Your task to perform on an android device: empty trash in google photos Image 0: 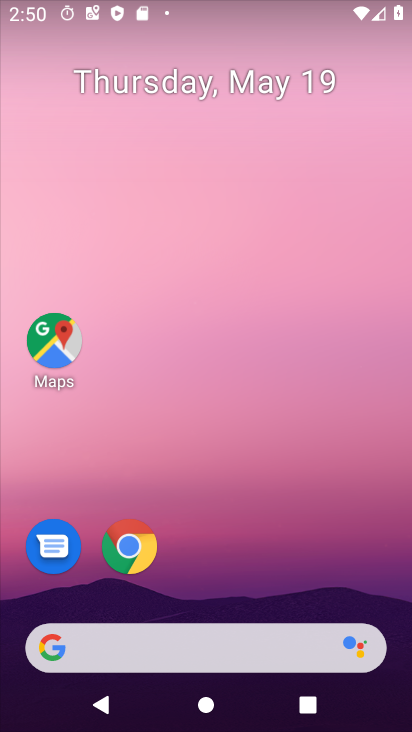
Step 0: drag from (199, 609) to (306, 6)
Your task to perform on an android device: empty trash in google photos Image 1: 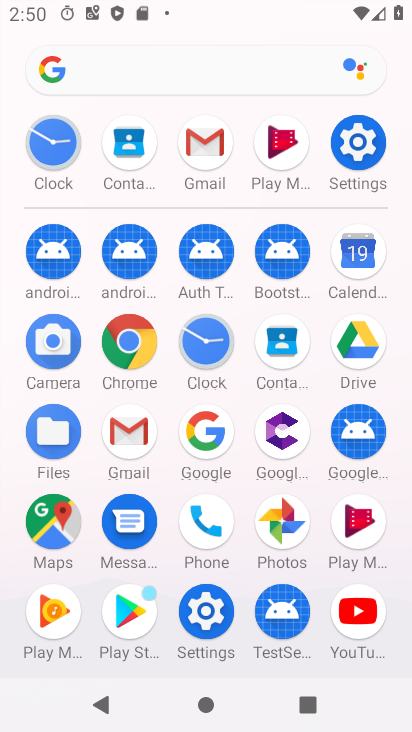
Step 1: click (286, 510)
Your task to perform on an android device: empty trash in google photos Image 2: 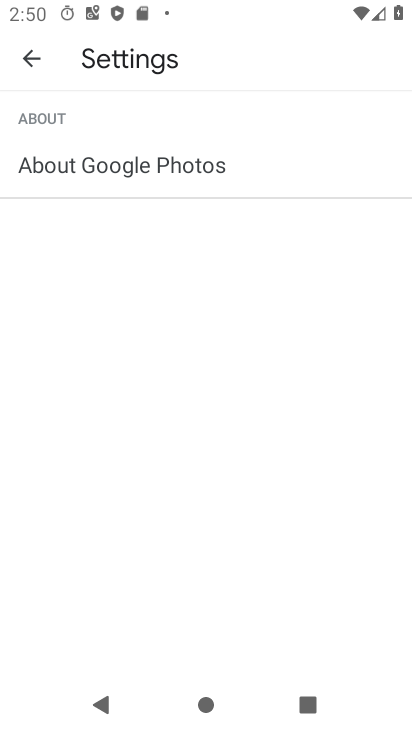
Step 2: click (50, 58)
Your task to perform on an android device: empty trash in google photos Image 3: 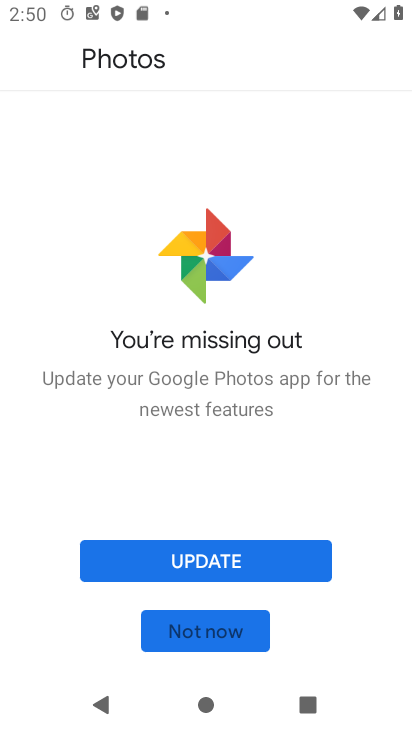
Step 3: click (254, 547)
Your task to perform on an android device: empty trash in google photos Image 4: 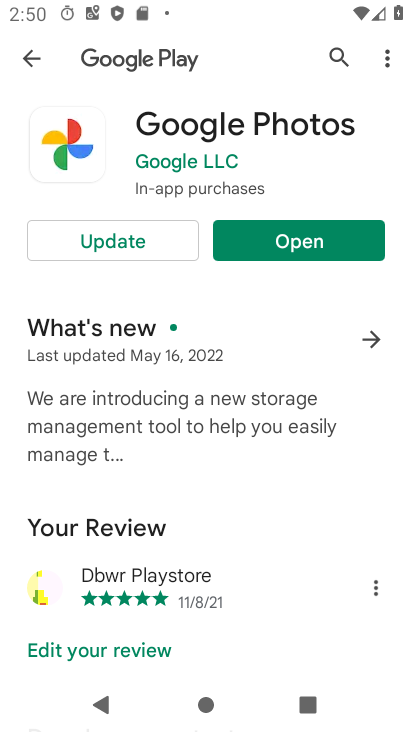
Step 4: click (253, 240)
Your task to perform on an android device: empty trash in google photos Image 5: 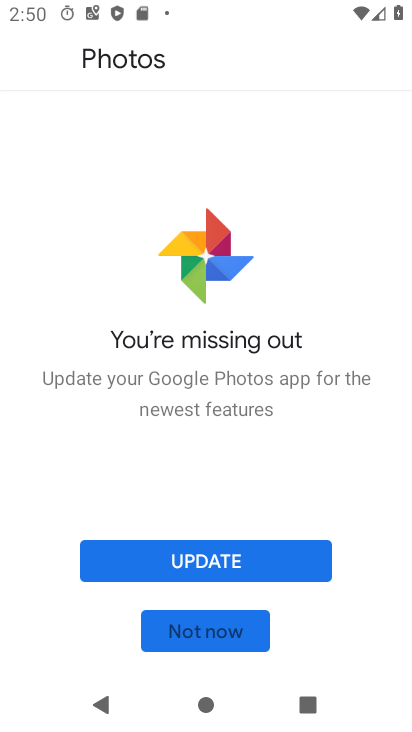
Step 5: click (182, 632)
Your task to perform on an android device: empty trash in google photos Image 6: 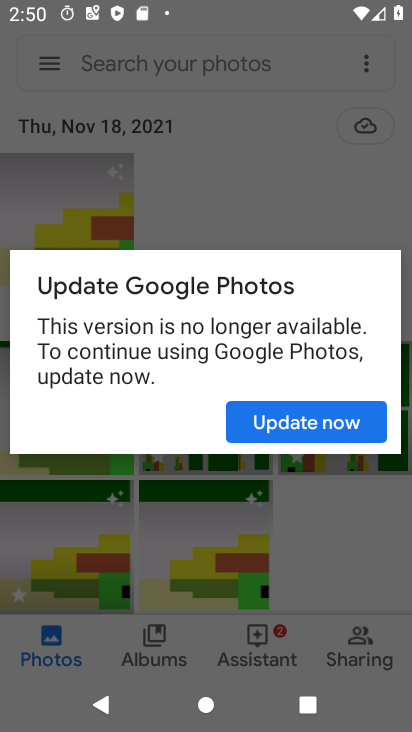
Step 6: click (299, 420)
Your task to perform on an android device: empty trash in google photos Image 7: 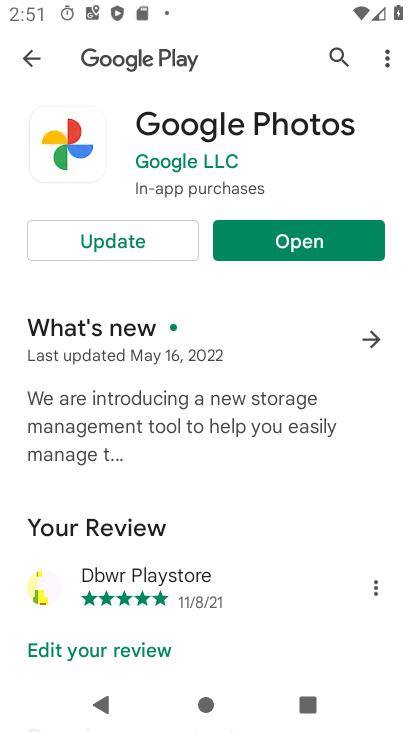
Step 7: click (247, 244)
Your task to perform on an android device: empty trash in google photos Image 8: 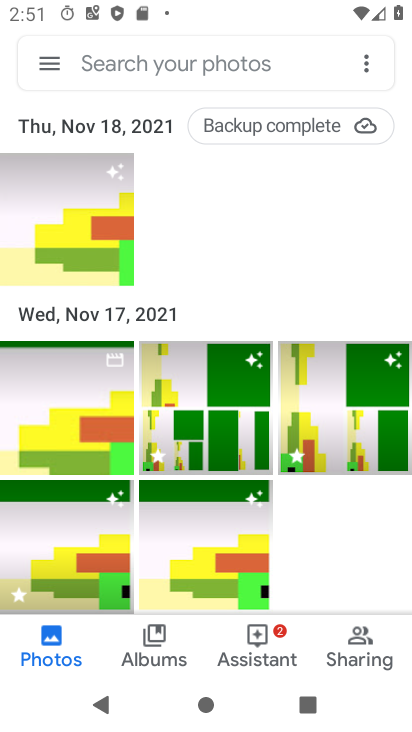
Step 8: click (53, 53)
Your task to perform on an android device: empty trash in google photos Image 9: 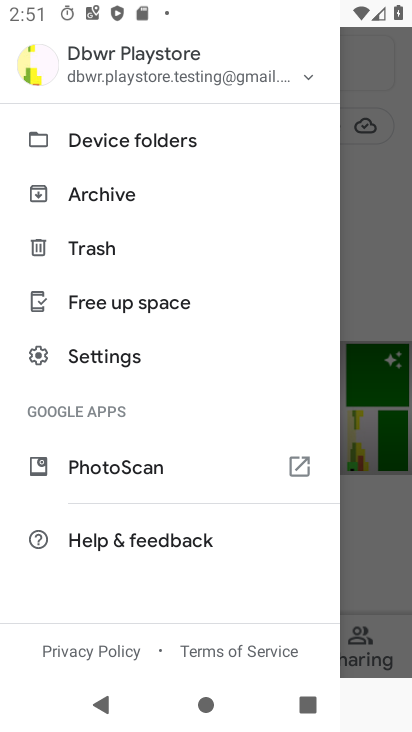
Step 9: click (88, 252)
Your task to perform on an android device: empty trash in google photos Image 10: 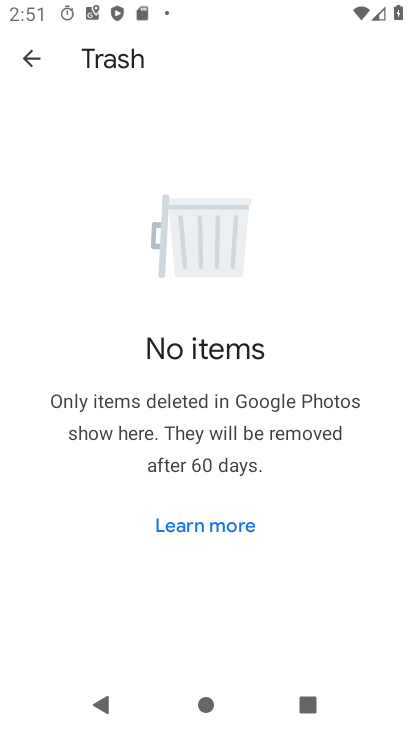
Step 10: task complete